Your task to perform on an android device: toggle wifi Image 0: 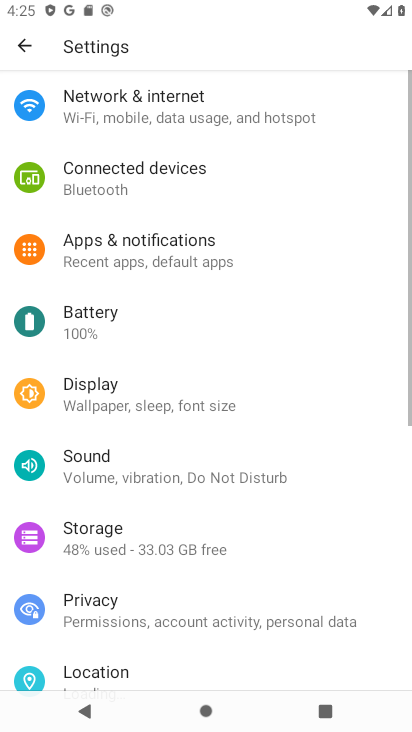
Step 0: drag from (195, 595) to (188, 211)
Your task to perform on an android device: toggle wifi Image 1: 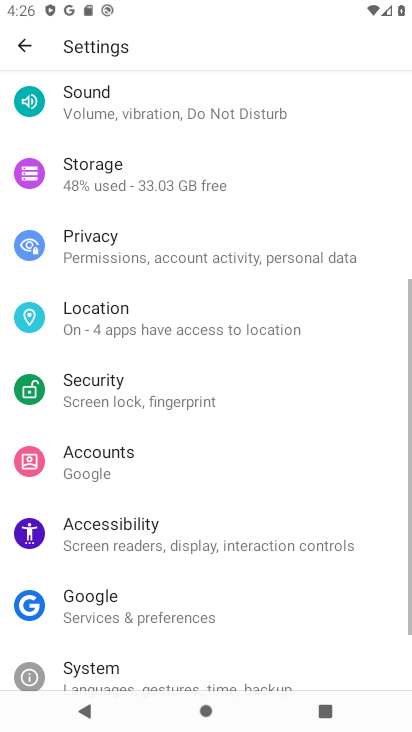
Step 1: drag from (135, 152) to (170, 729)
Your task to perform on an android device: toggle wifi Image 2: 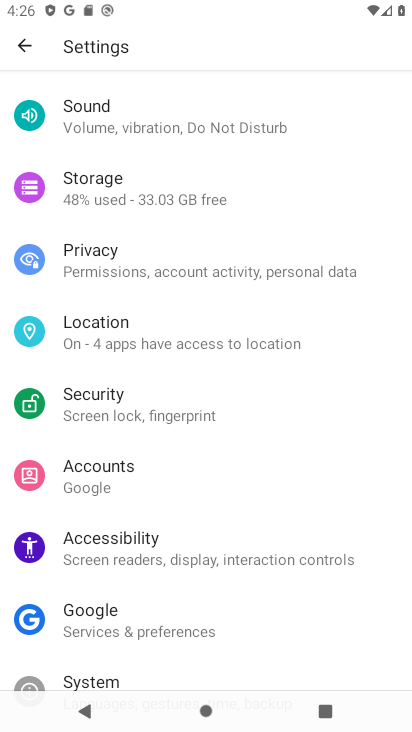
Step 2: drag from (110, 192) to (128, 680)
Your task to perform on an android device: toggle wifi Image 3: 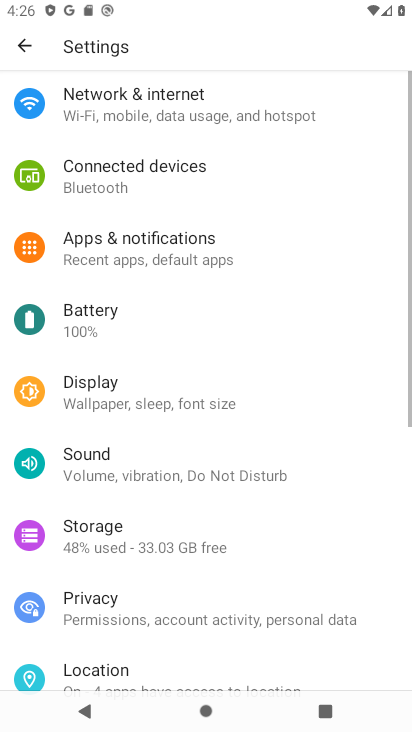
Step 3: click (141, 110)
Your task to perform on an android device: toggle wifi Image 4: 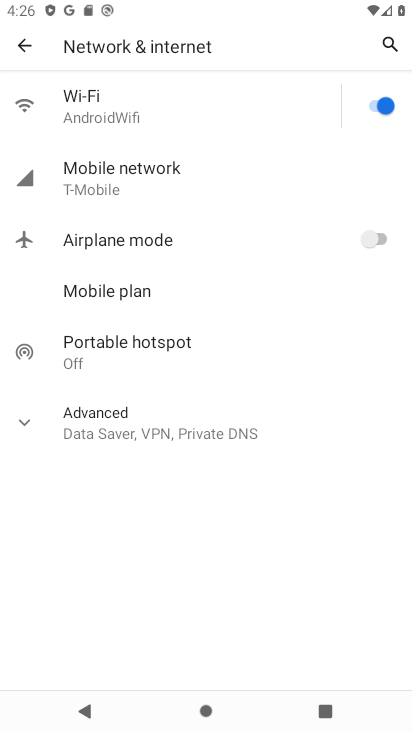
Step 4: click (370, 104)
Your task to perform on an android device: toggle wifi Image 5: 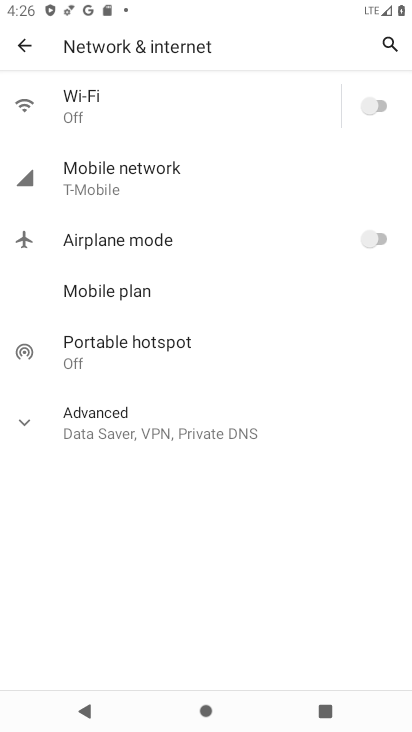
Step 5: task complete